Your task to perform on an android device: Search for Mexican restaurants on Maps Image 0: 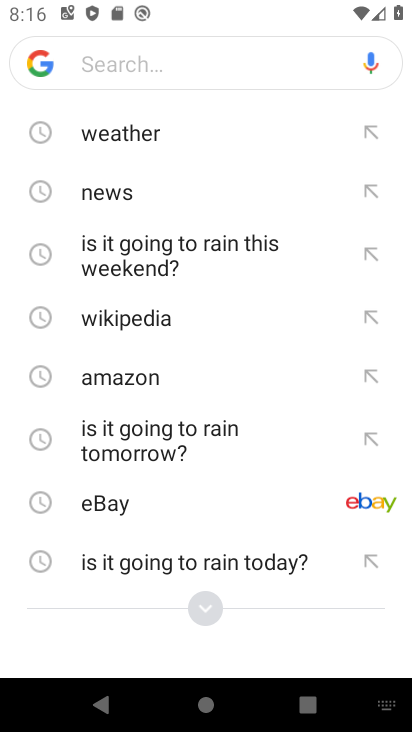
Step 0: press home button
Your task to perform on an android device: Search for Mexican restaurants on Maps Image 1: 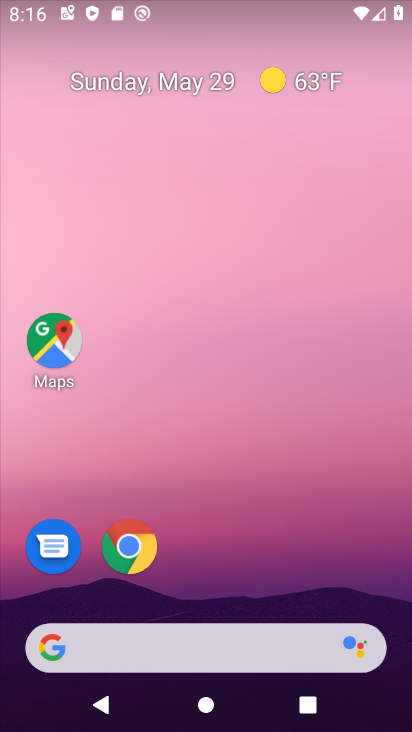
Step 1: click (51, 355)
Your task to perform on an android device: Search for Mexican restaurants on Maps Image 2: 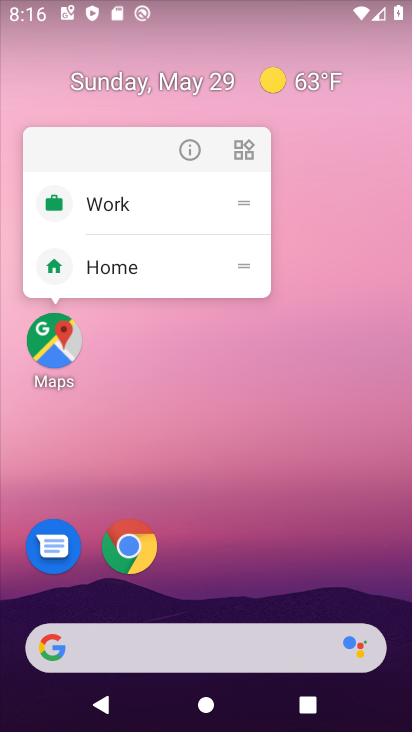
Step 2: click (56, 352)
Your task to perform on an android device: Search for Mexican restaurants on Maps Image 3: 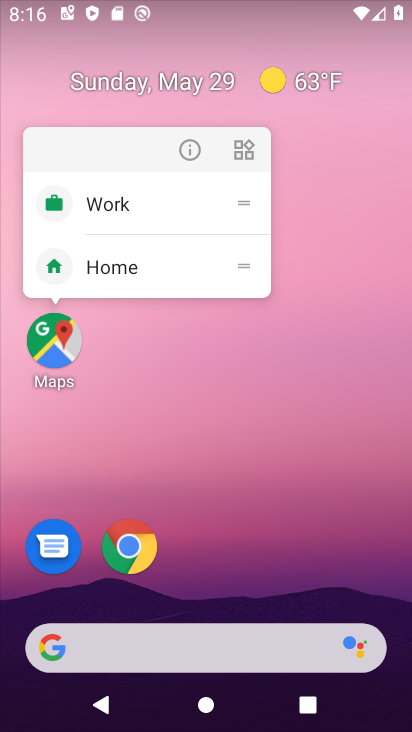
Step 3: click (47, 348)
Your task to perform on an android device: Search for Mexican restaurants on Maps Image 4: 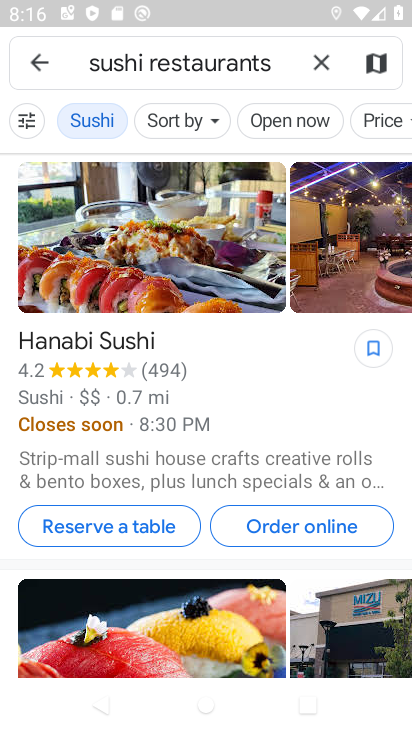
Step 4: click (315, 63)
Your task to perform on an android device: Search for Mexican restaurants on Maps Image 5: 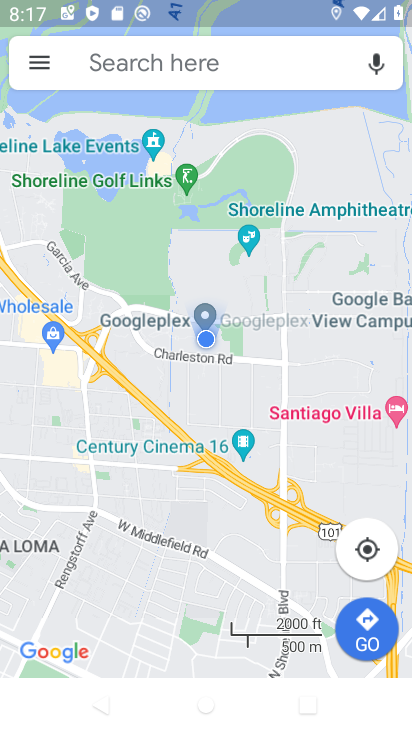
Step 5: click (196, 61)
Your task to perform on an android device: Search for Mexican restaurants on Maps Image 6: 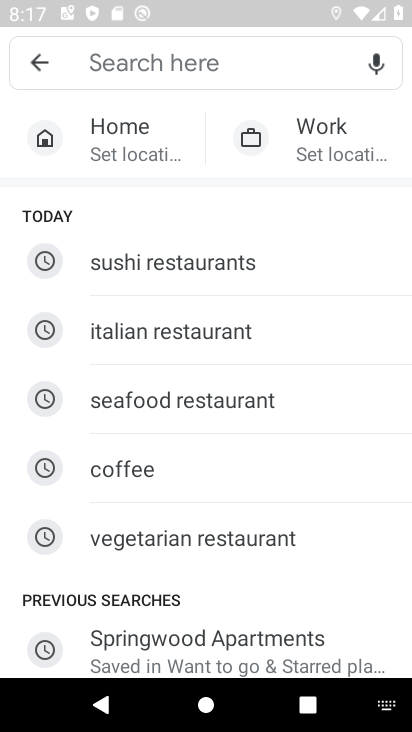
Step 6: type "mexican"
Your task to perform on an android device: Search for Mexican restaurants on Maps Image 7: 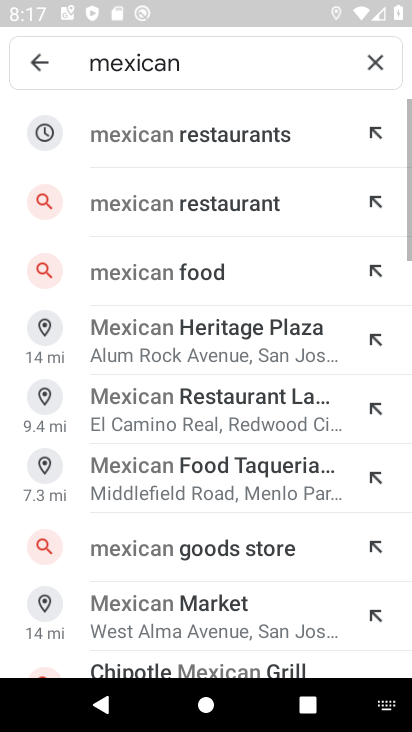
Step 7: click (263, 131)
Your task to perform on an android device: Search for Mexican restaurants on Maps Image 8: 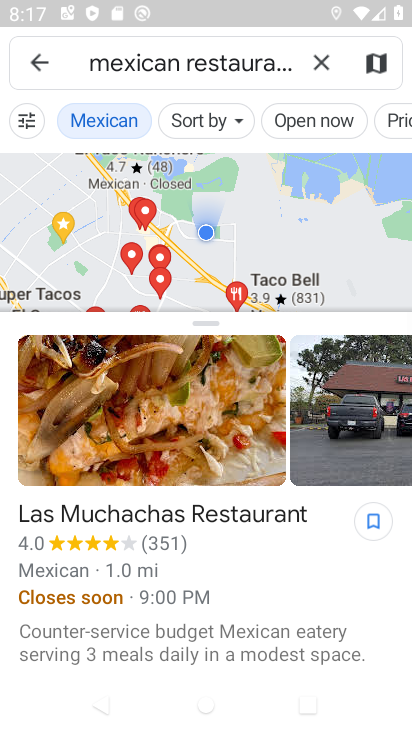
Step 8: task complete